Your task to perform on an android device: Play the last video I watched on Youtube Image 0: 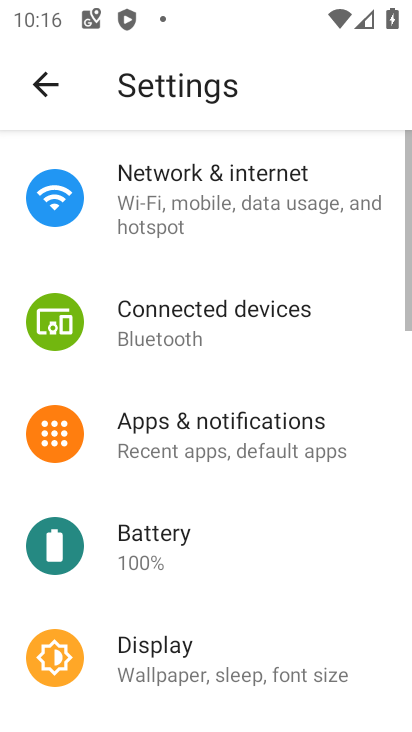
Step 0: press home button
Your task to perform on an android device: Play the last video I watched on Youtube Image 1: 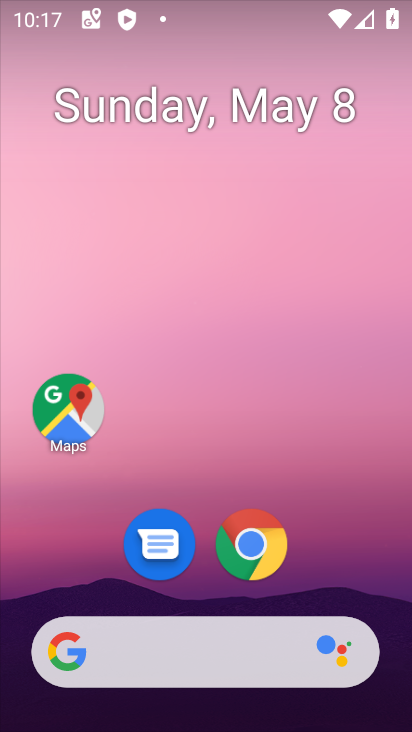
Step 1: drag from (328, 589) to (281, 119)
Your task to perform on an android device: Play the last video I watched on Youtube Image 2: 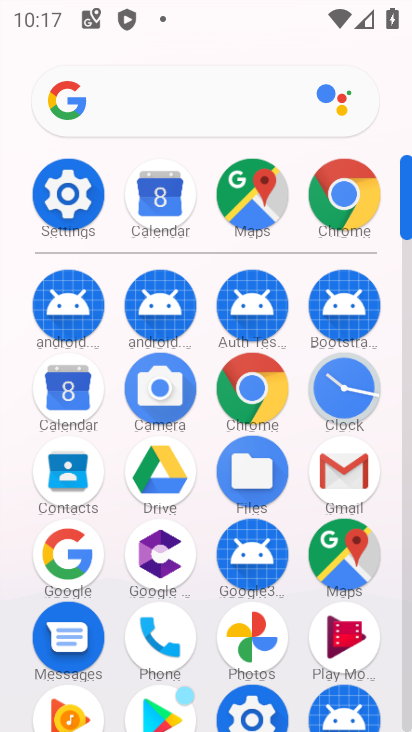
Step 2: click (407, 729)
Your task to perform on an android device: Play the last video I watched on Youtube Image 3: 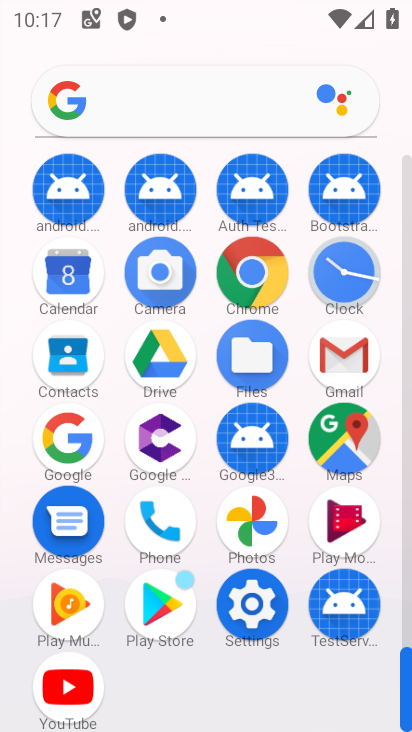
Step 3: click (68, 705)
Your task to perform on an android device: Play the last video I watched on Youtube Image 4: 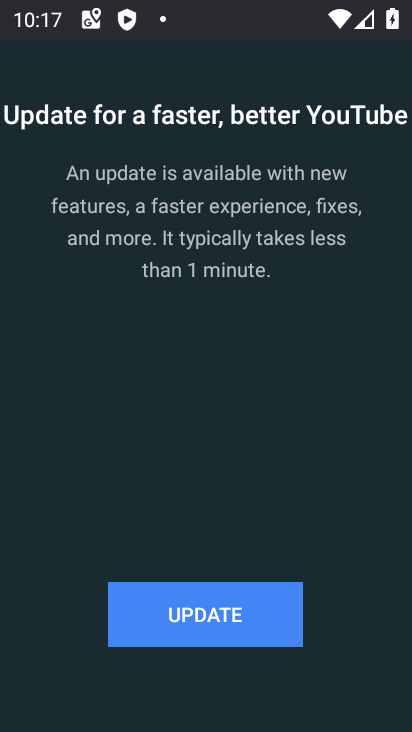
Step 4: click (238, 617)
Your task to perform on an android device: Play the last video I watched on Youtube Image 5: 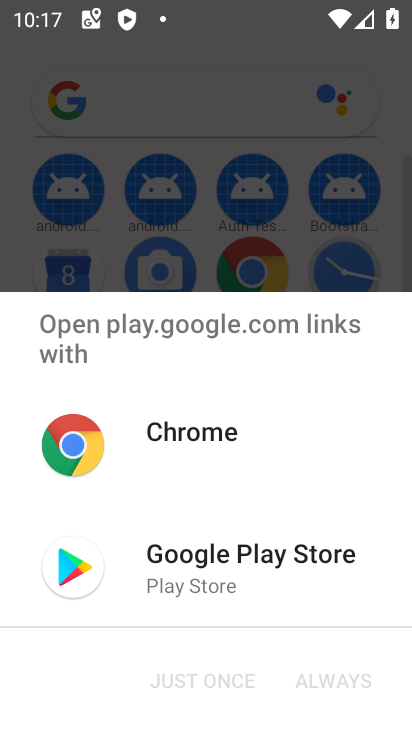
Step 5: click (248, 584)
Your task to perform on an android device: Play the last video I watched on Youtube Image 6: 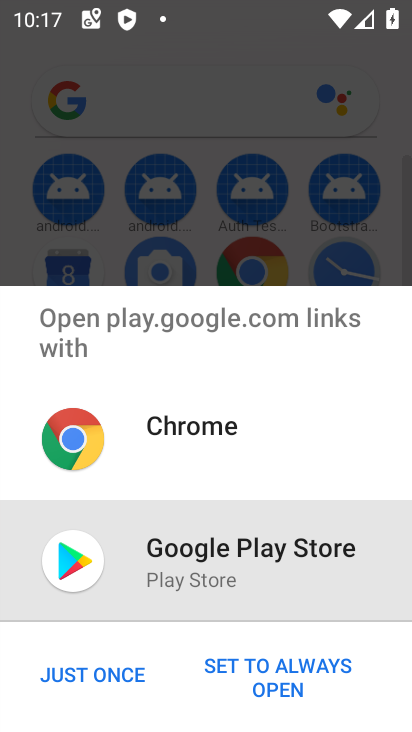
Step 6: click (248, 584)
Your task to perform on an android device: Play the last video I watched on Youtube Image 7: 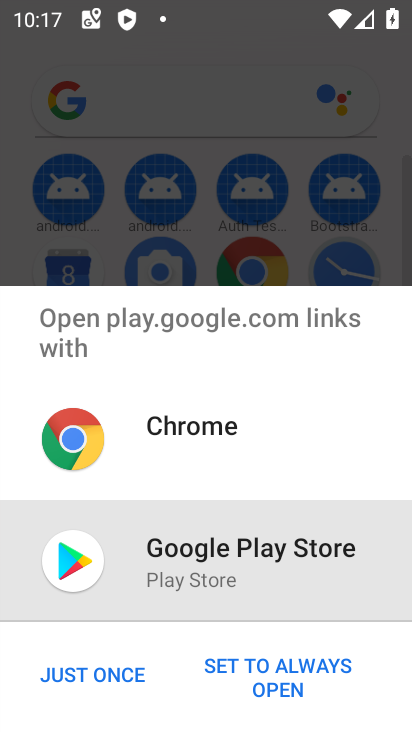
Step 7: click (248, 584)
Your task to perform on an android device: Play the last video I watched on Youtube Image 8: 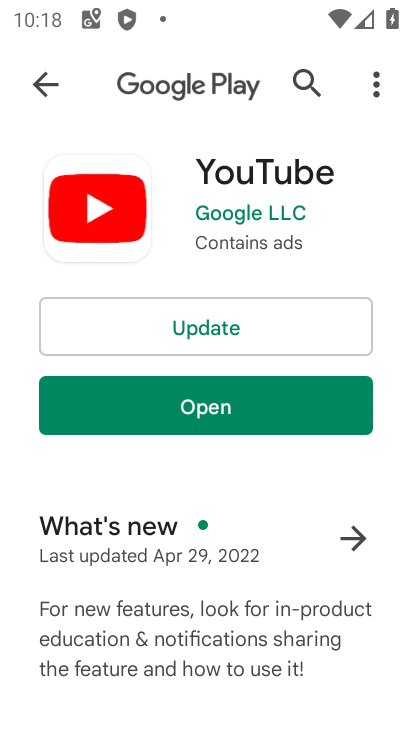
Step 8: click (209, 310)
Your task to perform on an android device: Play the last video I watched on Youtube Image 9: 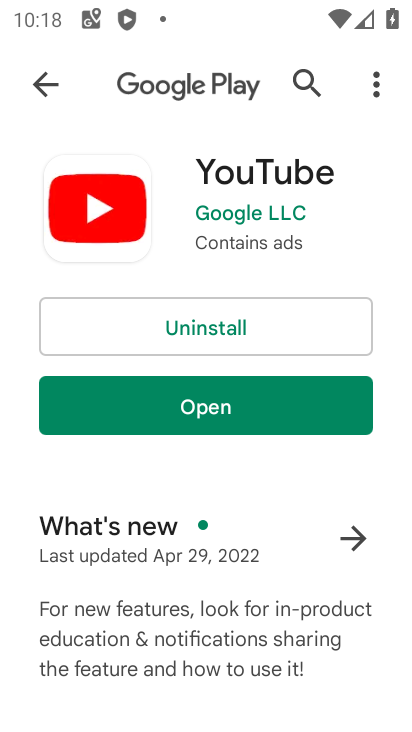
Step 9: click (267, 397)
Your task to perform on an android device: Play the last video I watched on Youtube Image 10: 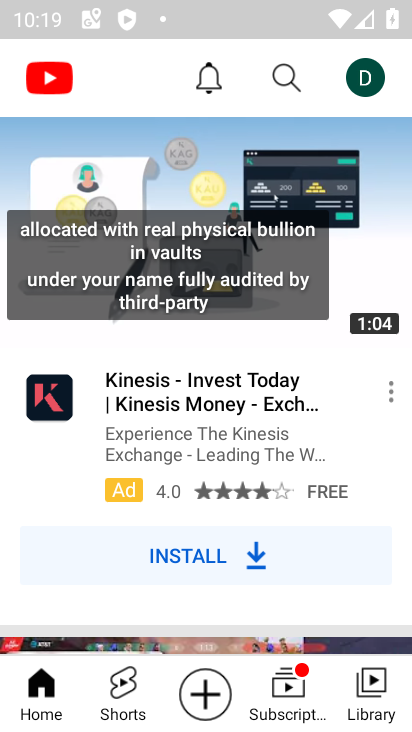
Step 10: click (379, 690)
Your task to perform on an android device: Play the last video I watched on Youtube Image 11: 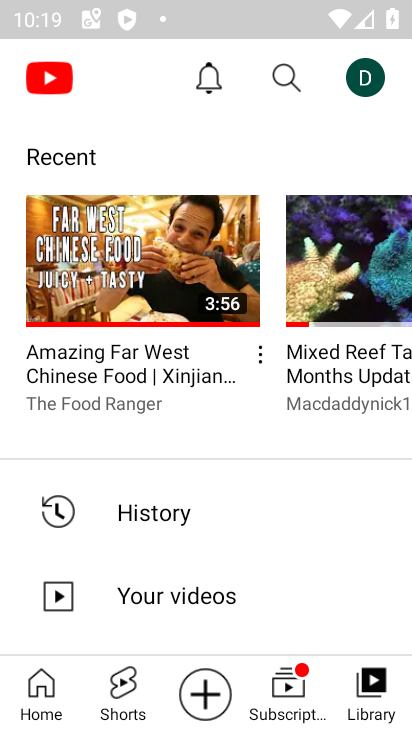
Step 11: click (247, 517)
Your task to perform on an android device: Play the last video I watched on Youtube Image 12: 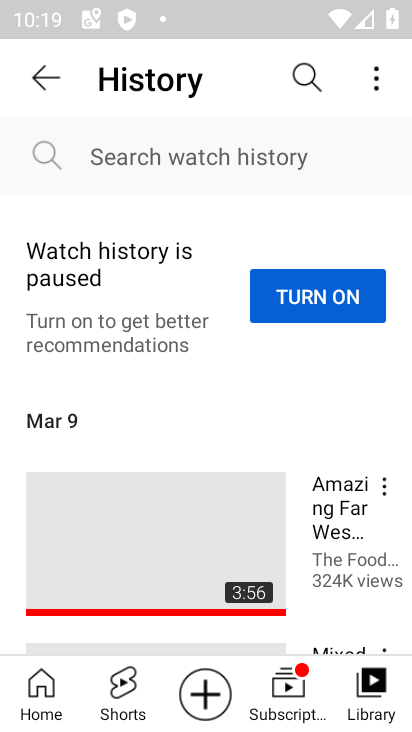
Step 12: task complete